Your task to perform on an android device: Go to network settings Image 0: 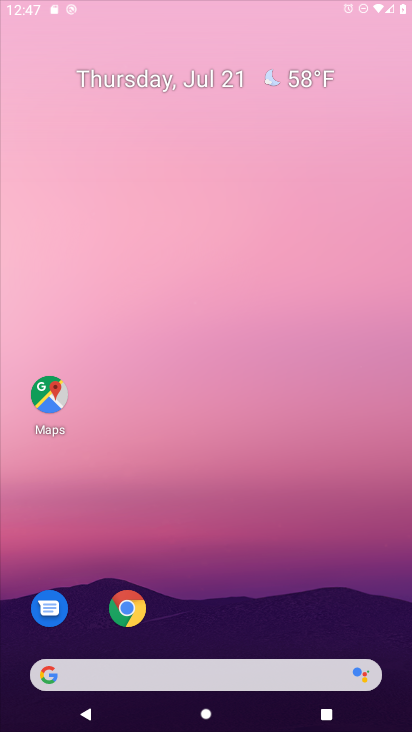
Step 0: press home button
Your task to perform on an android device: Go to network settings Image 1: 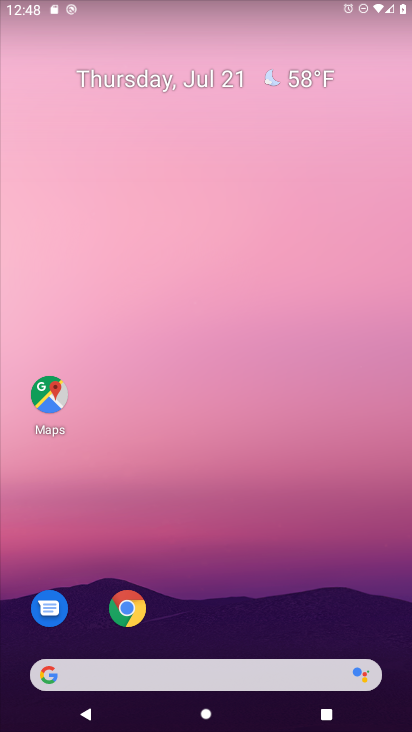
Step 1: drag from (234, 431) to (255, 159)
Your task to perform on an android device: Go to network settings Image 2: 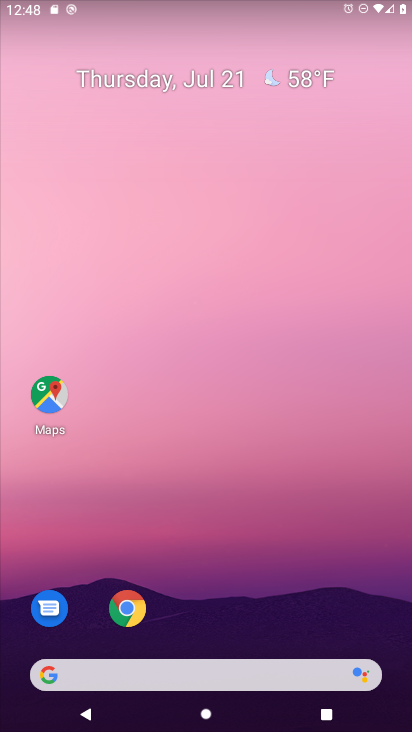
Step 2: drag from (178, 622) to (175, 1)
Your task to perform on an android device: Go to network settings Image 3: 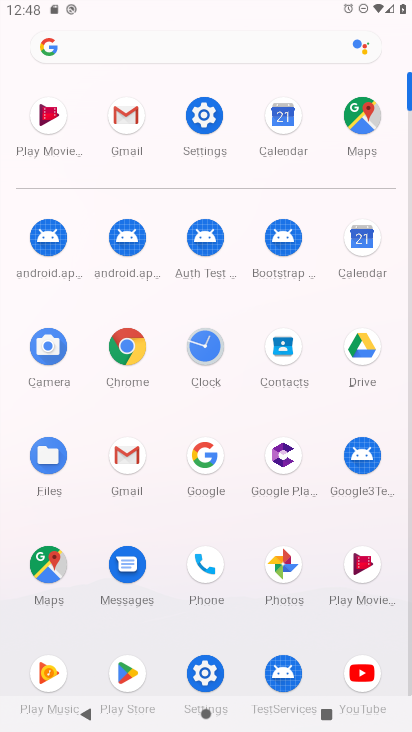
Step 3: click (204, 108)
Your task to perform on an android device: Go to network settings Image 4: 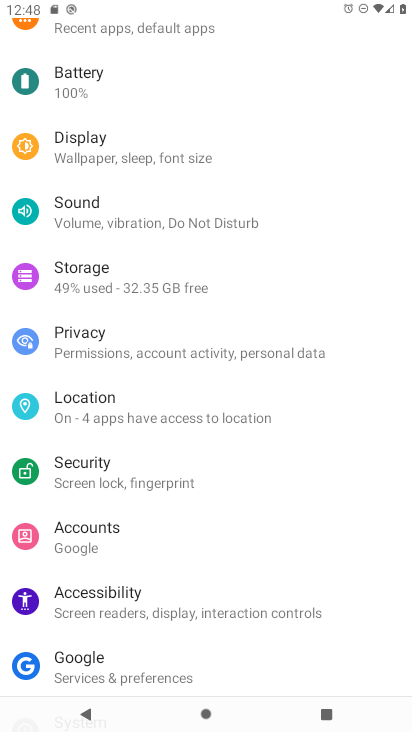
Step 4: drag from (291, 99) to (305, 517)
Your task to perform on an android device: Go to network settings Image 5: 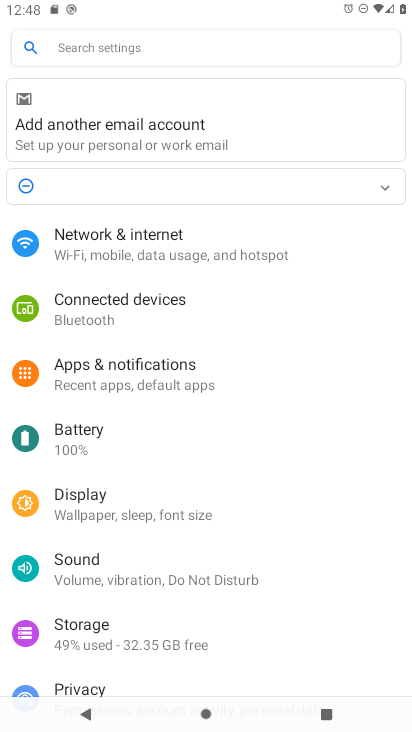
Step 5: click (113, 246)
Your task to perform on an android device: Go to network settings Image 6: 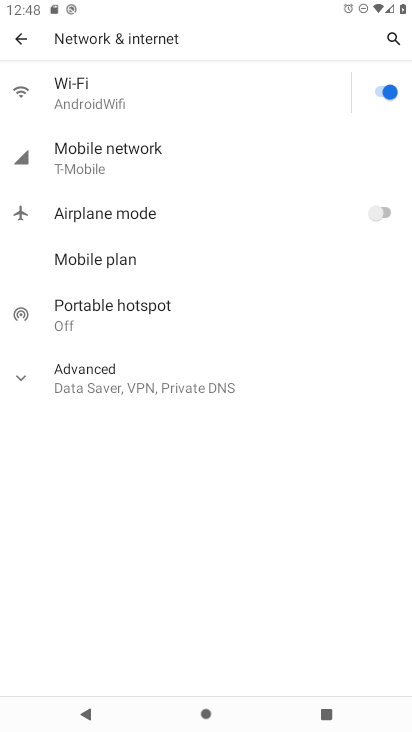
Step 6: task complete